Your task to perform on an android device: Go to eBay Image 0: 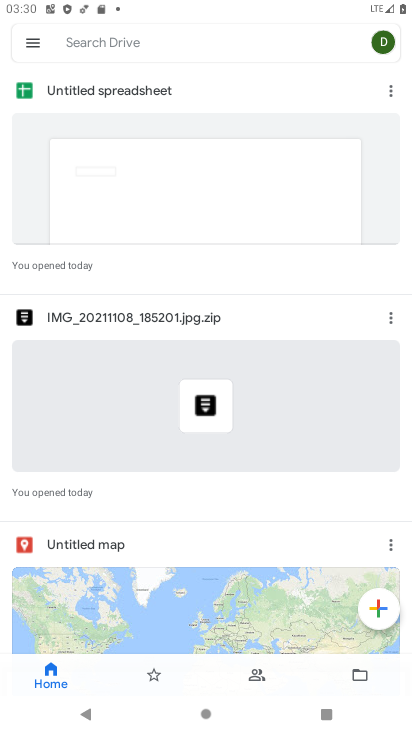
Step 0: press home button
Your task to perform on an android device: Go to eBay Image 1: 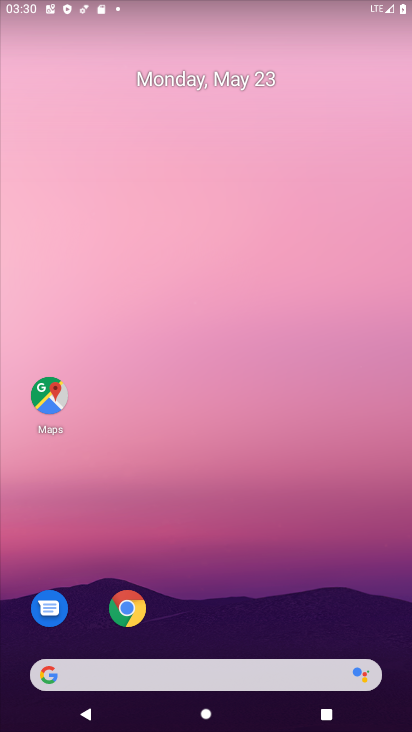
Step 1: click (128, 608)
Your task to perform on an android device: Go to eBay Image 2: 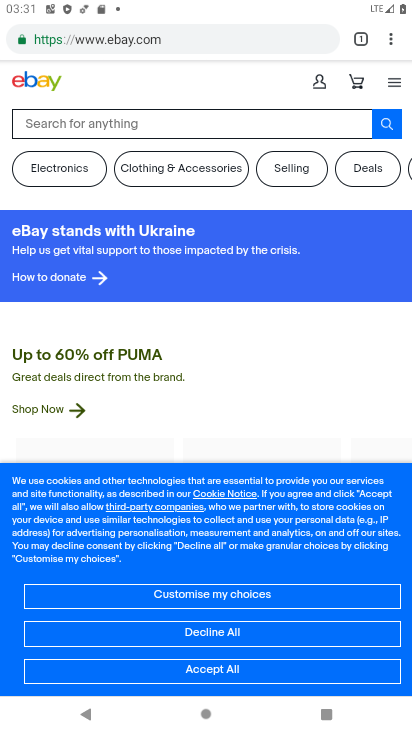
Step 2: task complete